Your task to perform on an android device: install app "ColorNote Notepad Notes" Image 0: 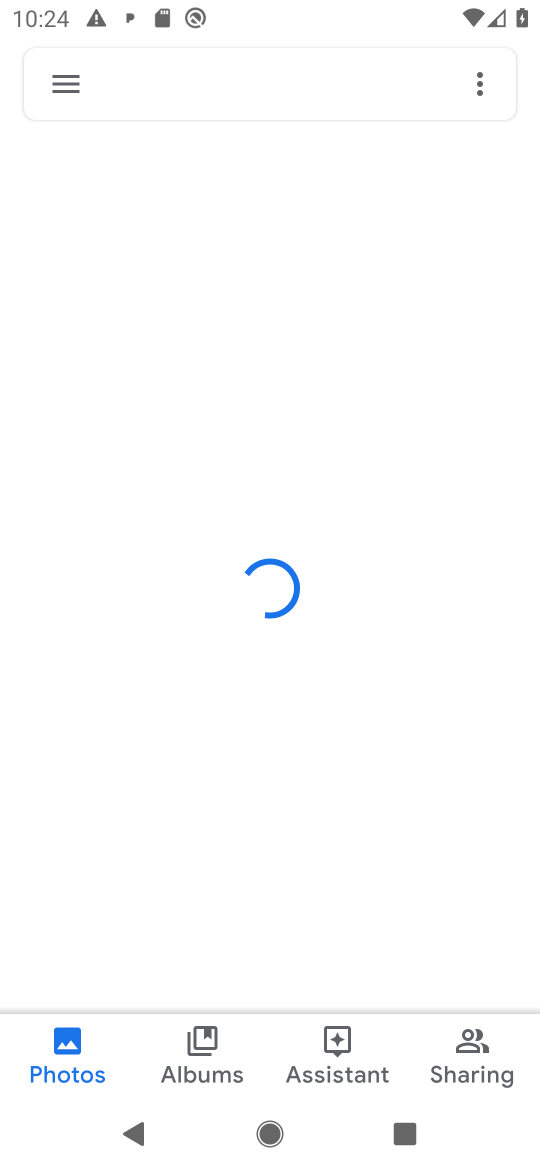
Step 0: press home button
Your task to perform on an android device: install app "ColorNote Notepad Notes" Image 1: 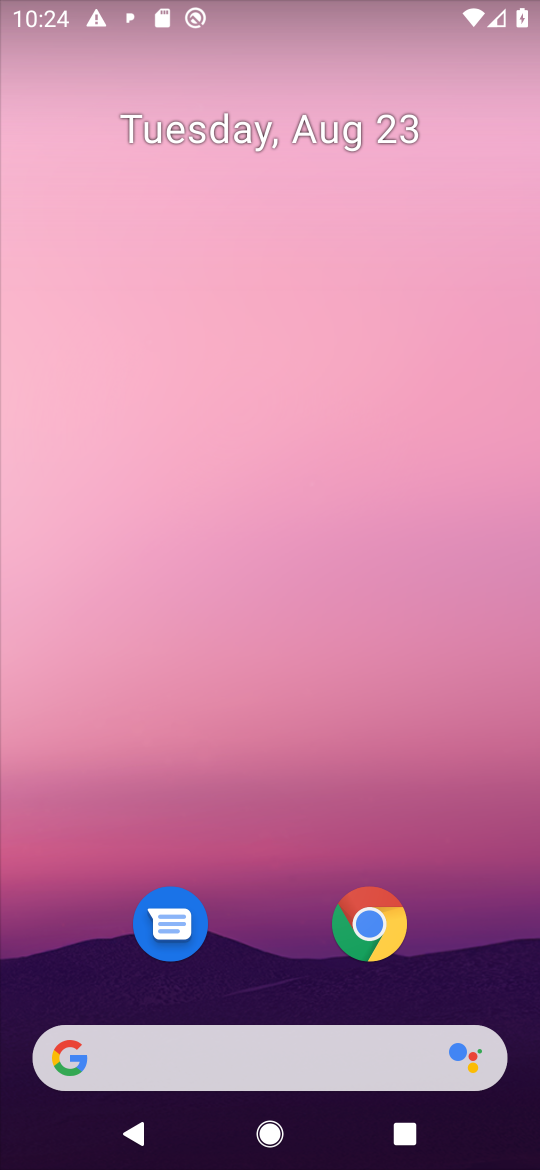
Step 1: drag from (469, 923) to (490, 57)
Your task to perform on an android device: install app "ColorNote Notepad Notes" Image 2: 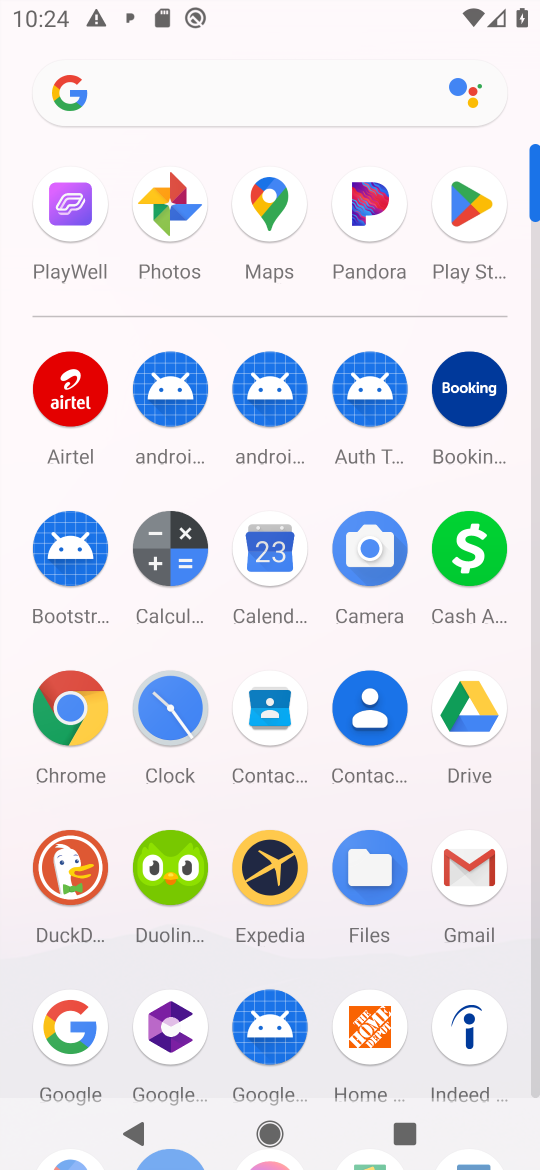
Step 2: click (465, 211)
Your task to perform on an android device: install app "ColorNote Notepad Notes" Image 3: 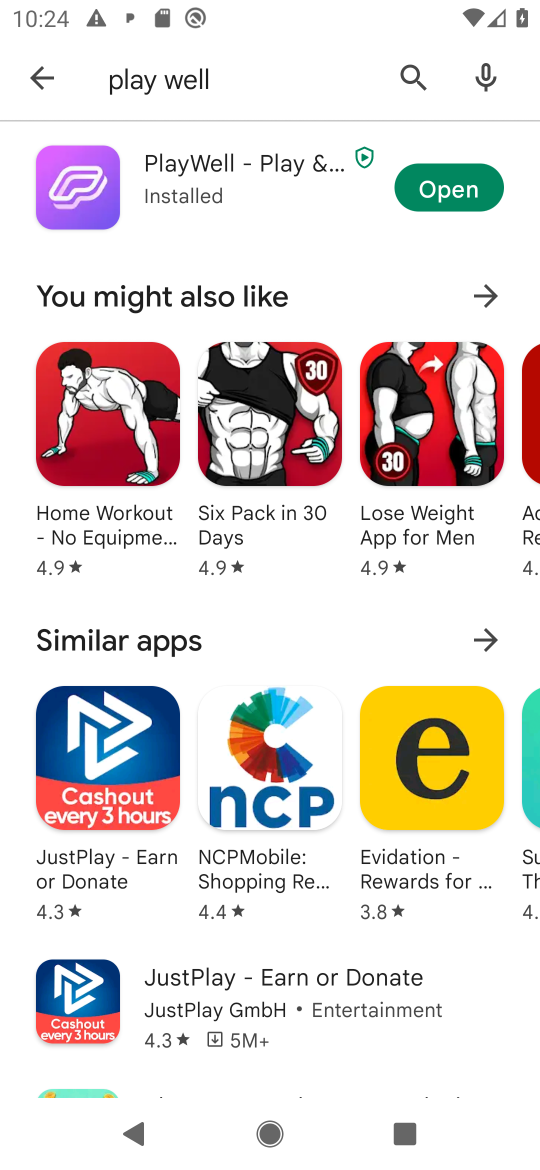
Step 3: press back button
Your task to perform on an android device: install app "ColorNote Notepad Notes" Image 4: 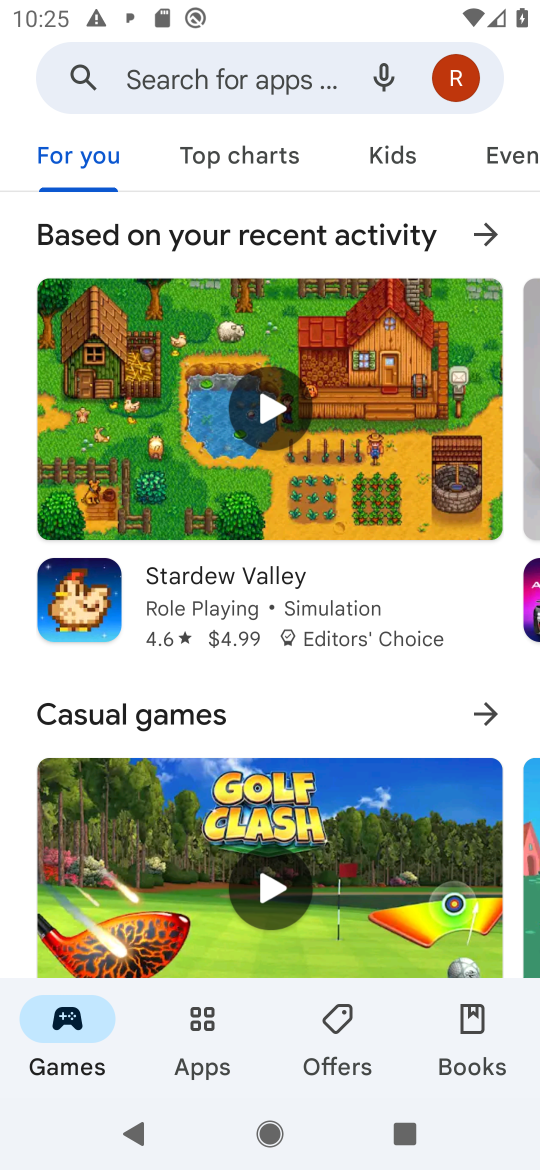
Step 4: click (270, 82)
Your task to perform on an android device: install app "ColorNote Notepad Notes" Image 5: 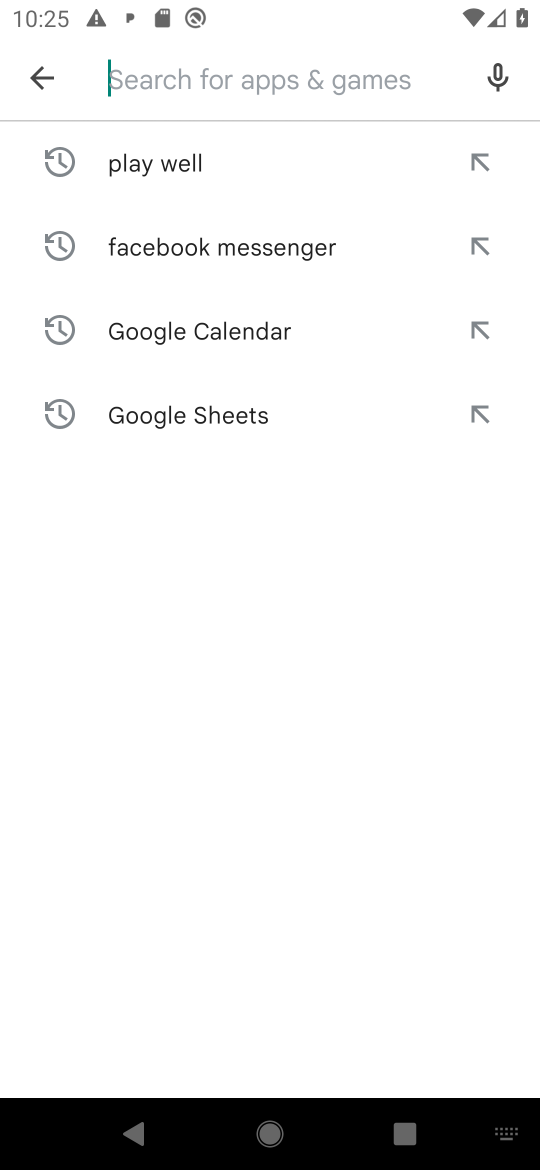
Step 5: type "ColorNote Notepad Notes"
Your task to perform on an android device: install app "ColorNote Notepad Notes" Image 6: 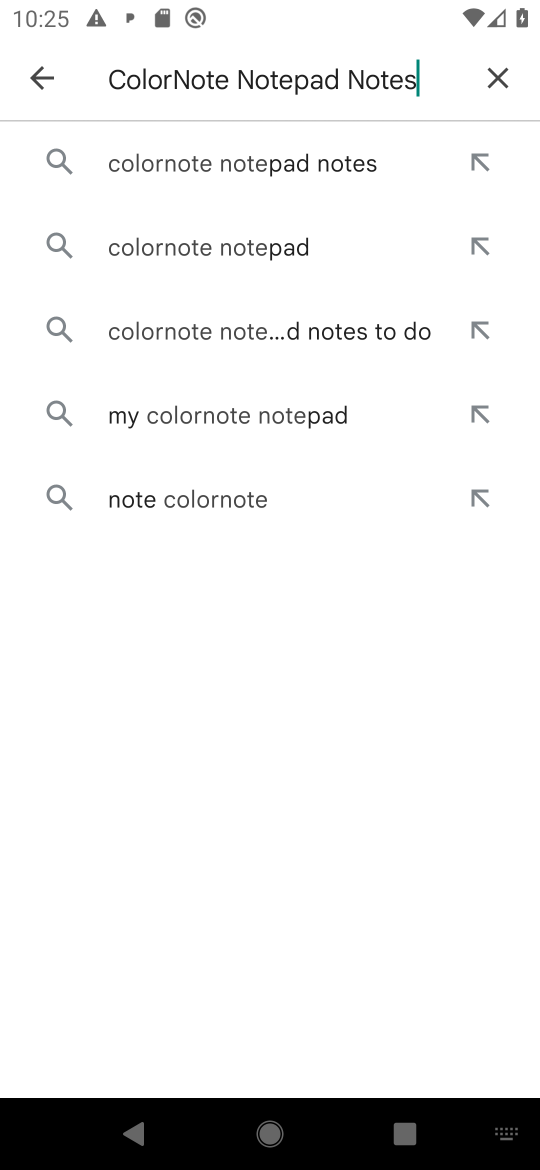
Step 6: press enter
Your task to perform on an android device: install app "ColorNote Notepad Notes" Image 7: 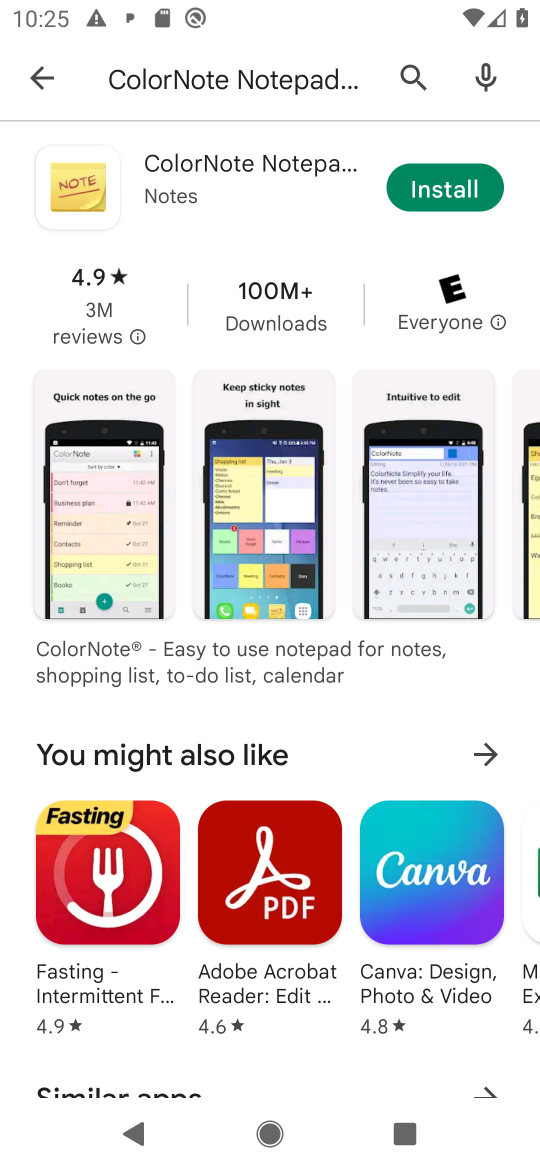
Step 7: click (443, 191)
Your task to perform on an android device: install app "ColorNote Notepad Notes" Image 8: 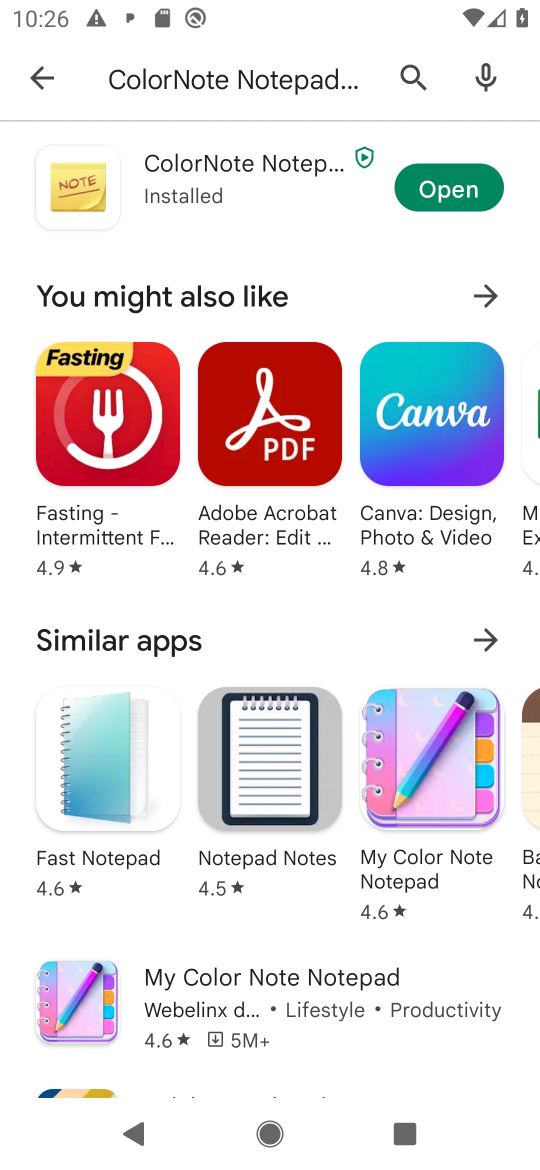
Step 8: task complete